Your task to perform on an android device: Turn on the flashlight Image 0: 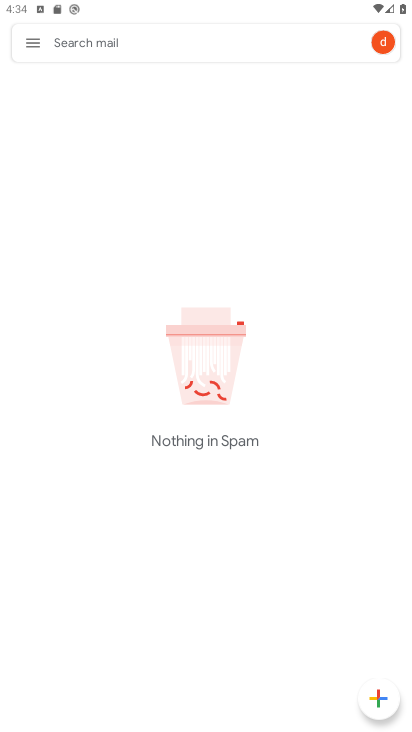
Step 0: press home button
Your task to perform on an android device: Turn on the flashlight Image 1: 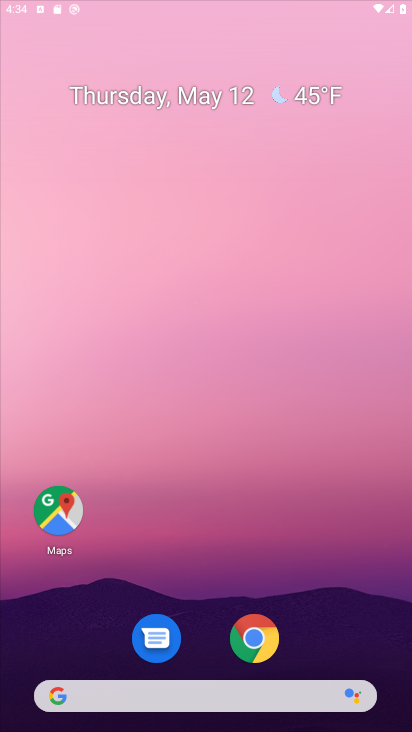
Step 1: task complete